Your task to perform on an android device: turn on priority inbox in the gmail app Image 0: 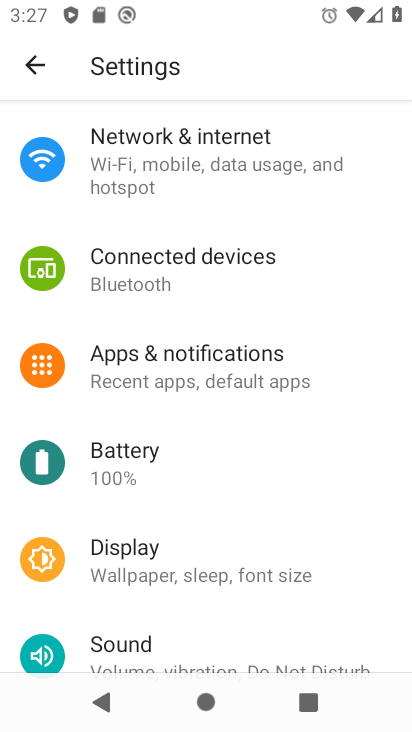
Step 0: press home button
Your task to perform on an android device: turn on priority inbox in the gmail app Image 1: 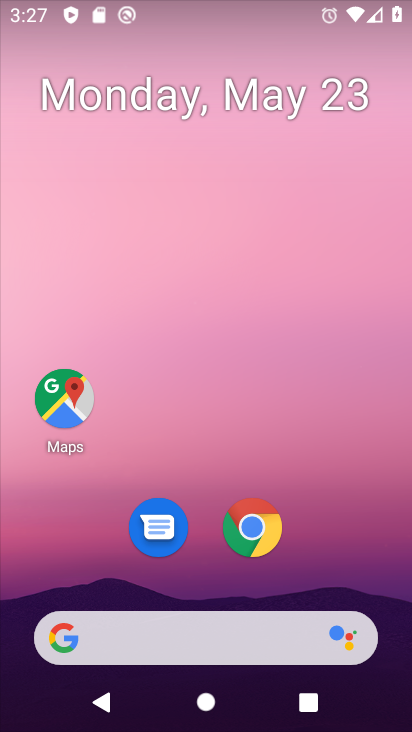
Step 1: drag from (333, 551) to (277, 150)
Your task to perform on an android device: turn on priority inbox in the gmail app Image 2: 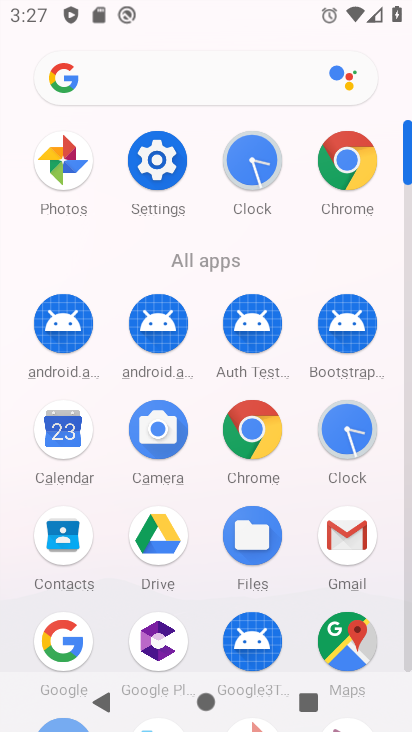
Step 2: click (346, 524)
Your task to perform on an android device: turn on priority inbox in the gmail app Image 3: 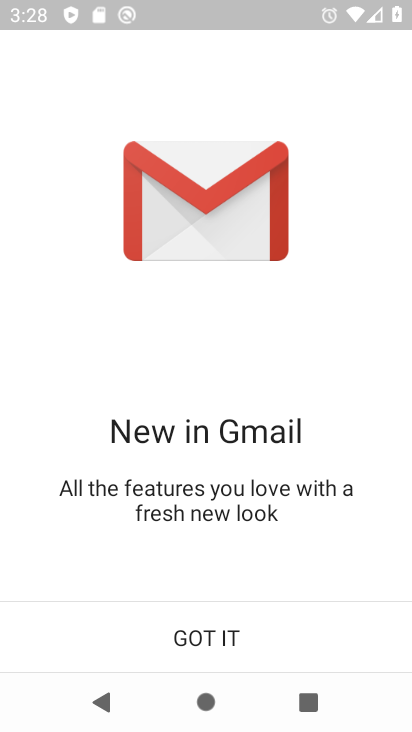
Step 3: click (251, 650)
Your task to perform on an android device: turn on priority inbox in the gmail app Image 4: 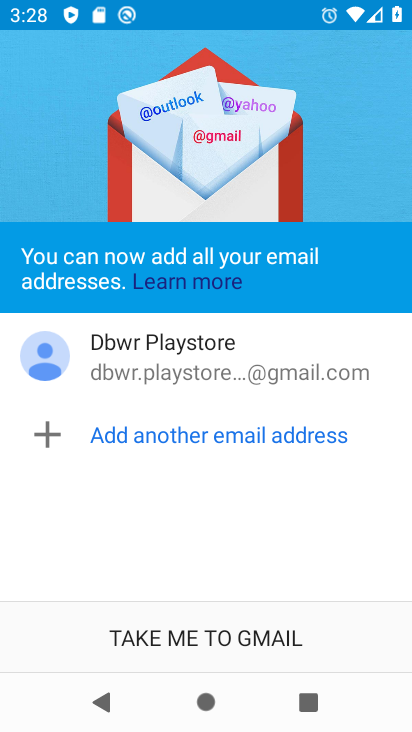
Step 4: click (252, 647)
Your task to perform on an android device: turn on priority inbox in the gmail app Image 5: 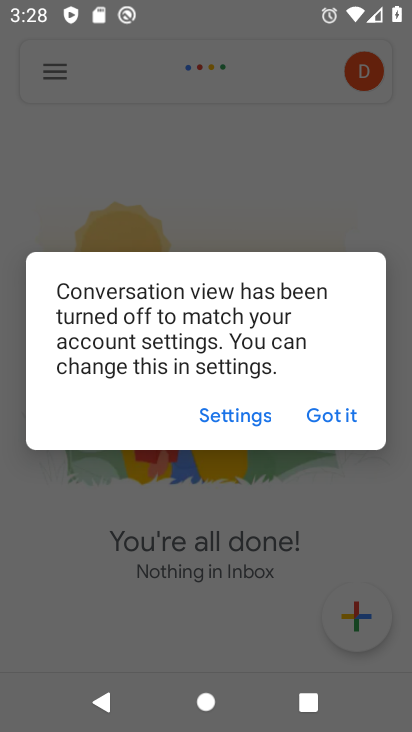
Step 5: click (328, 409)
Your task to perform on an android device: turn on priority inbox in the gmail app Image 6: 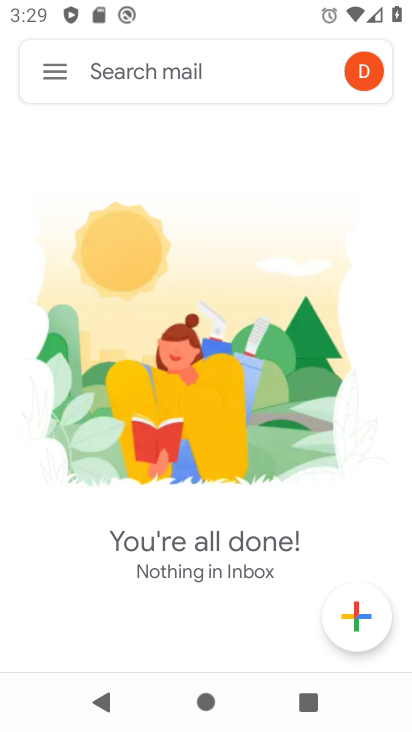
Step 6: click (72, 64)
Your task to perform on an android device: turn on priority inbox in the gmail app Image 7: 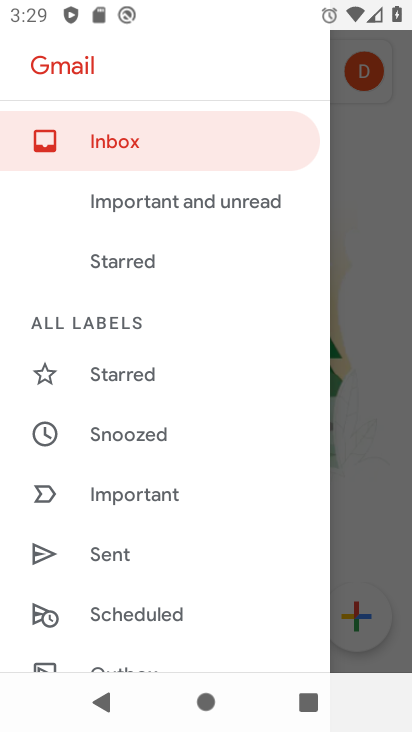
Step 7: drag from (200, 550) to (183, 113)
Your task to perform on an android device: turn on priority inbox in the gmail app Image 8: 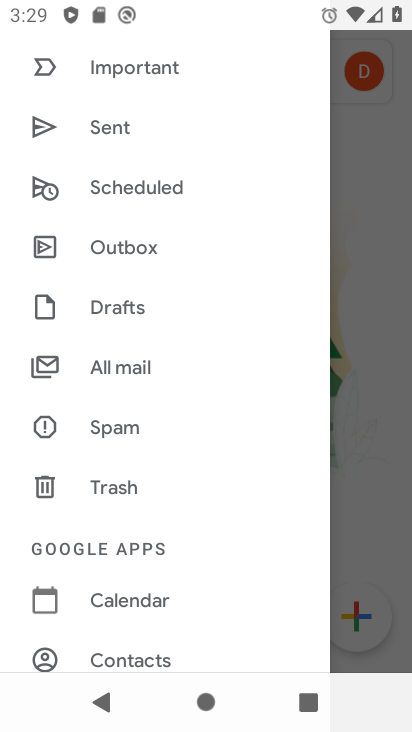
Step 8: drag from (201, 554) to (167, 152)
Your task to perform on an android device: turn on priority inbox in the gmail app Image 9: 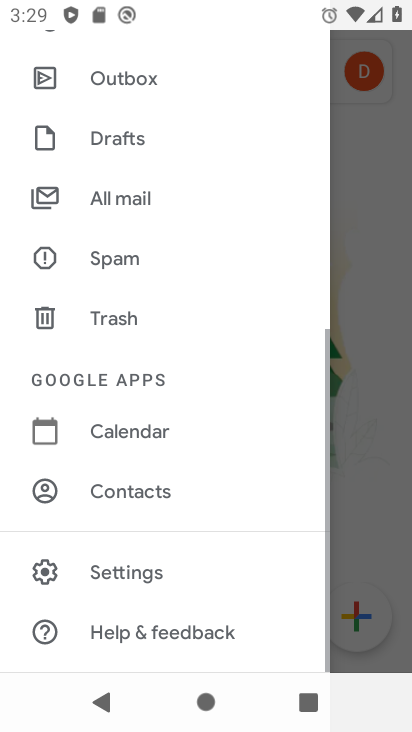
Step 9: click (201, 591)
Your task to perform on an android device: turn on priority inbox in the gmail app Image 10: 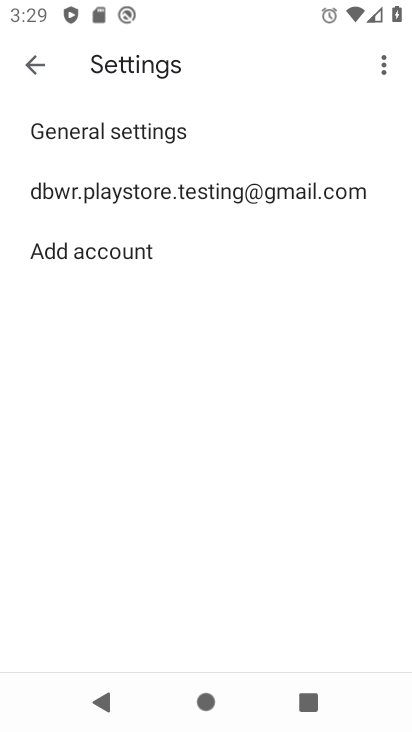
Step 10: click (183, 194)
Your task to perform on an android device: turn on priority inbox in the gmail app Image 11: 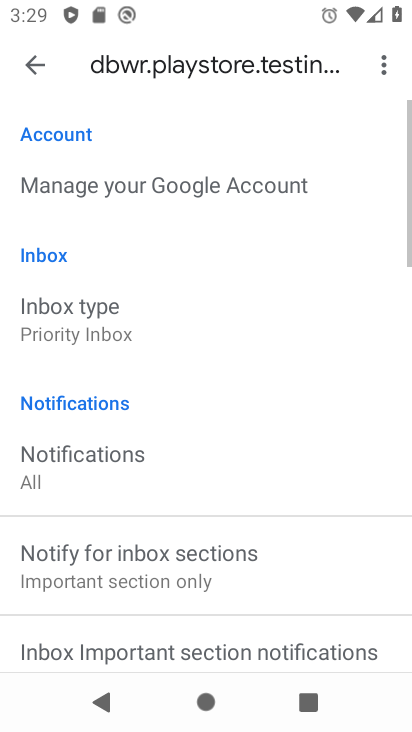
Step 11: click (193, 339)
Your task to perform on an android device: turn on priority inbox in the gmail app Image 12: 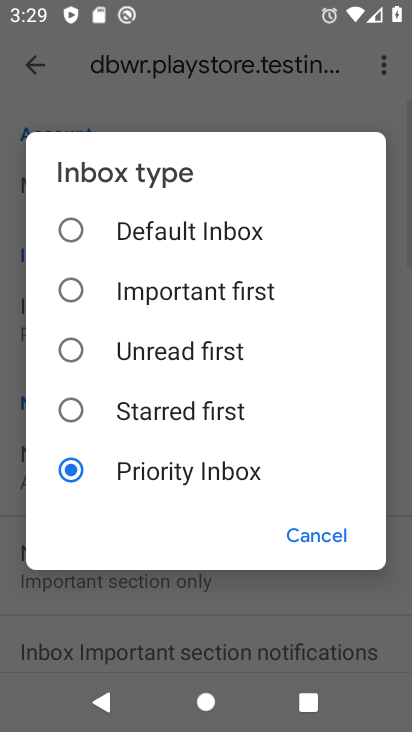
Step 12: task complete